Your task to perform on an android device: Open internet settings Image 0: 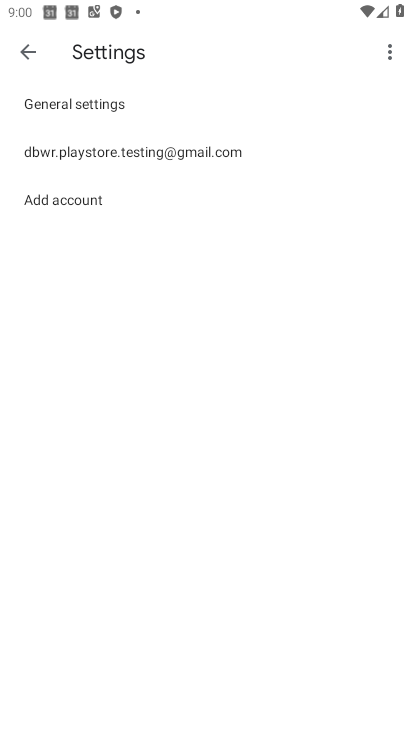
Step 0: press home button
Your task to perform on an android device: Open internet settings Image 1: 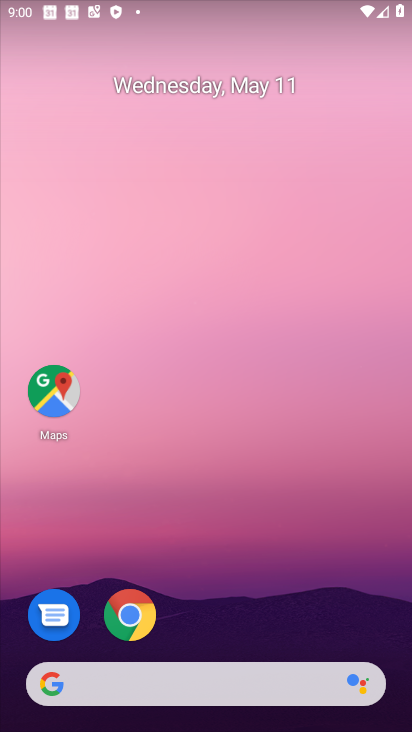
Step 1: drag from (71, 654) to (260, 129)
Your task to perform on an android device: Open internet settings Image 2: 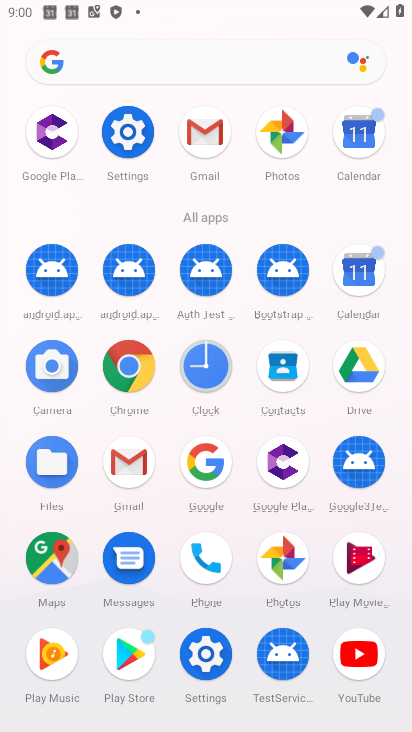
Step 2: click (147, 132)
Your task to perform on an android device: Open internet settings Image 3: 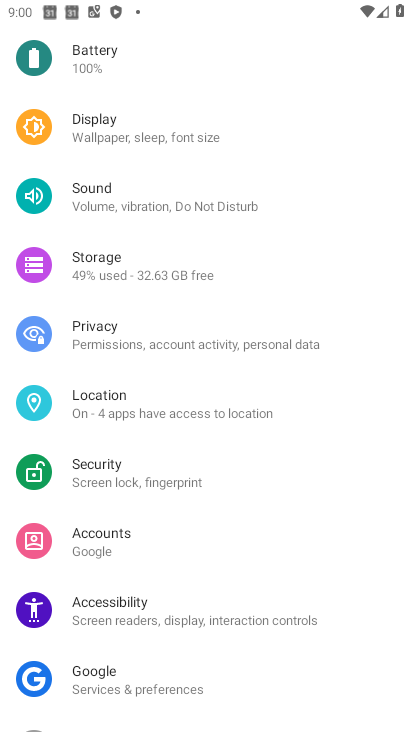
Step 3: drag from (176, 55) to (211, 528)
Your task to perform on an android device: Open internet settings Image 4: 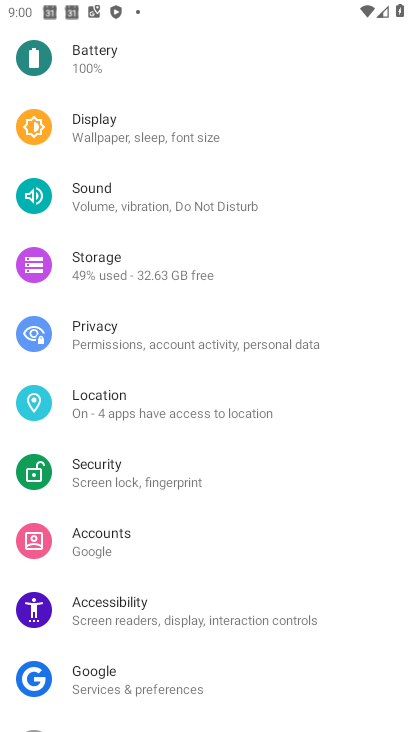
Step 4: drag from (170, 118) to (160, 578)
Your task to perform on an android device: Open internet settings Image 5: 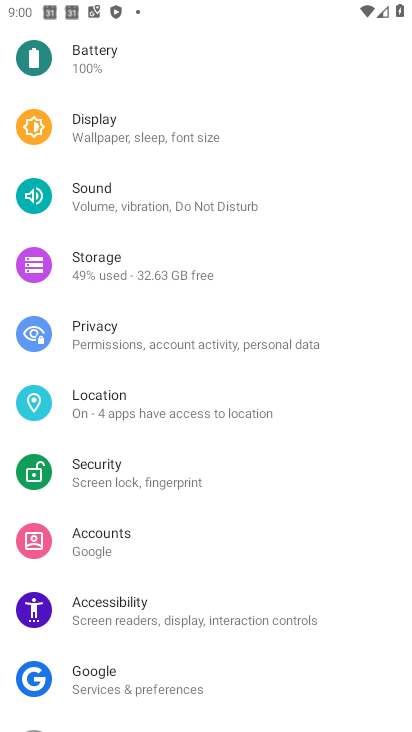
Step 5: drag from (187, 202) to (167, 556)
Your task to perform on an android device: Open internet settings Image 6: 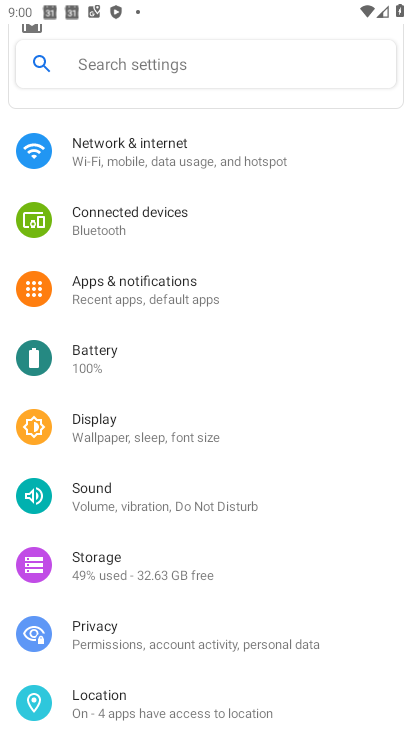
Step 6: drag from (218, 45) to (178, 542)
Your task to perform on an android device: Open internet settings Image 7: 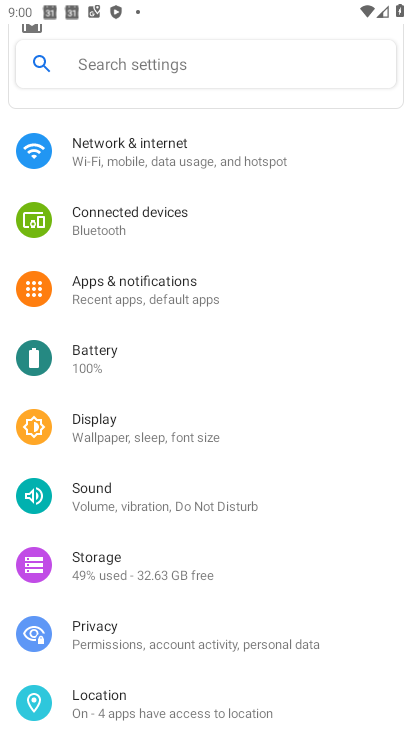
Step 7: click (149, 159)
Your task to perform on an android device: Open internet settings Image 8: 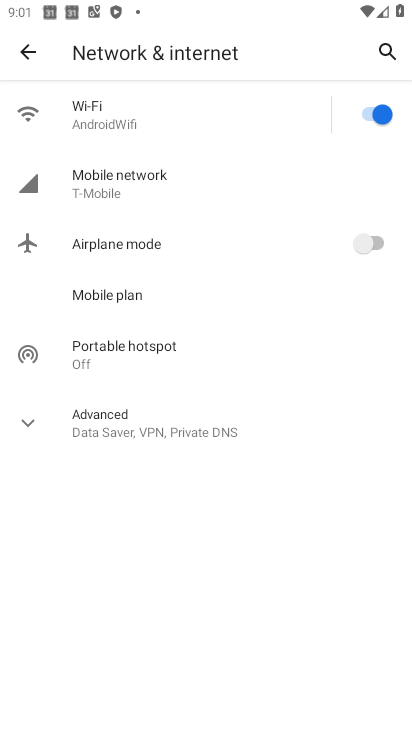
Step 8: click (140, 180)
Your task to perform on an android device: Open internet settings Image 9: 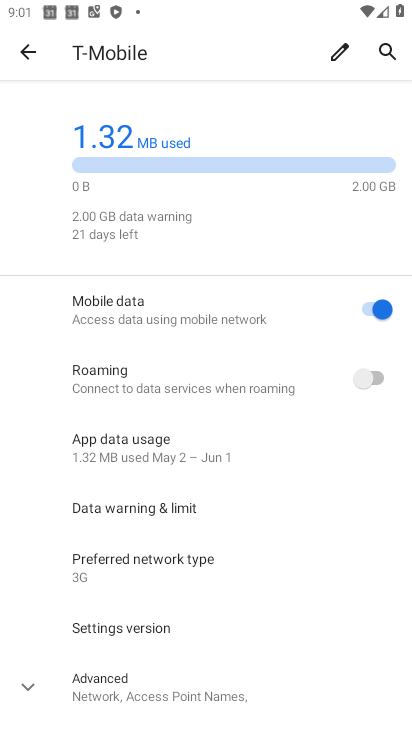
Step 9: task complete